Your task to perform on an android device: Open the map Image 0: 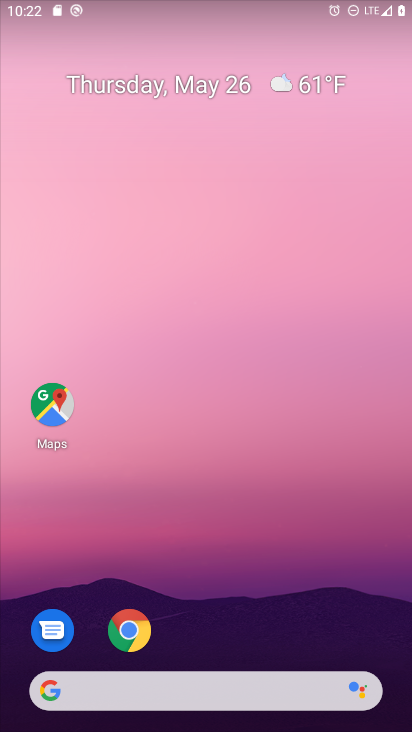
Step 0: click (46, 393)
Your task to perform on an android device: Open the map Image 1: 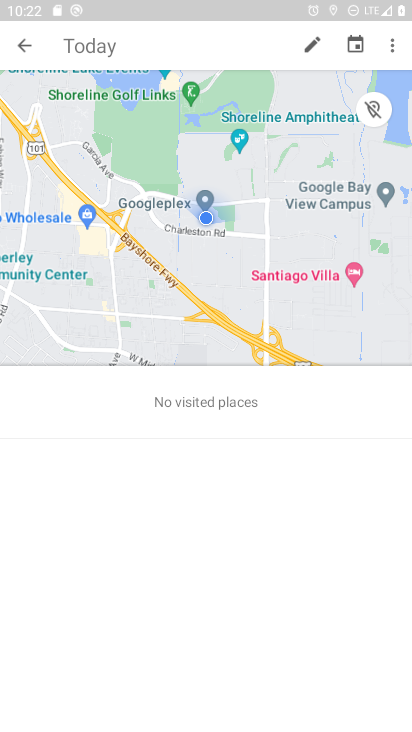
Step 1: click (35, 25)
Your task to perform on an android device: Open the map Image 2: 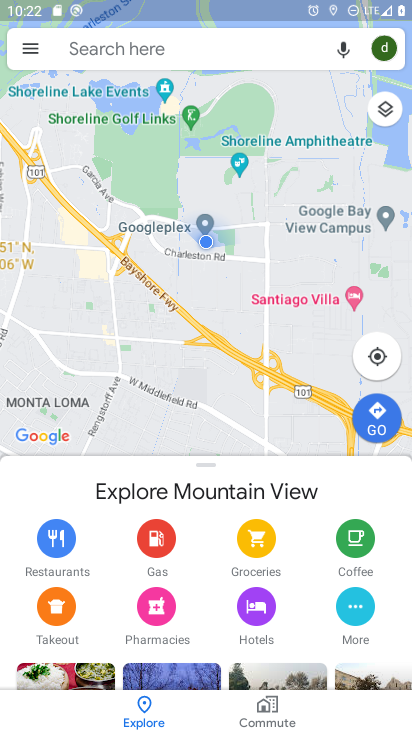
Step 2: task complete